Your task to perform on an android device: make emails show in primary in the gmail app Image 0: 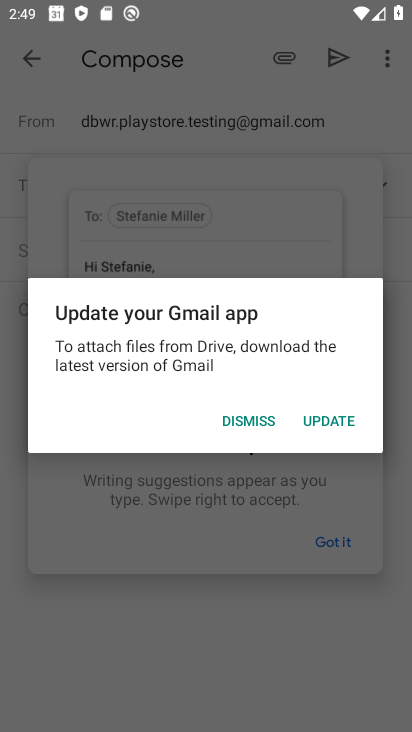
Step 0: press home button
Your task to perform on an android device: make emails show in primary in the gmail app Image 1: 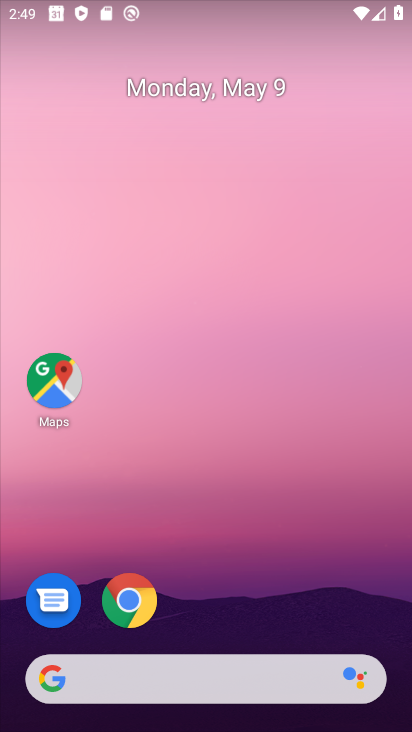
Step 1: drag from (212, 721) to (216, 53)
Your task to perform on an android device: make emails show in primary in the gmail app Image 2: 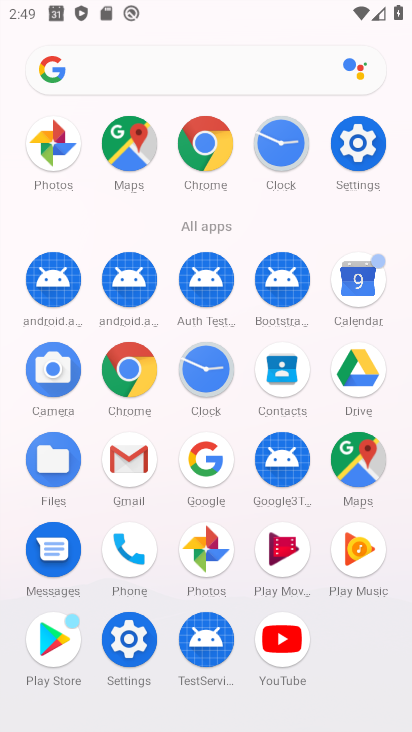
Step 2: click (128, 460)
Your task to perform on an android device: make emails show in primary in the gmail app Image 3: 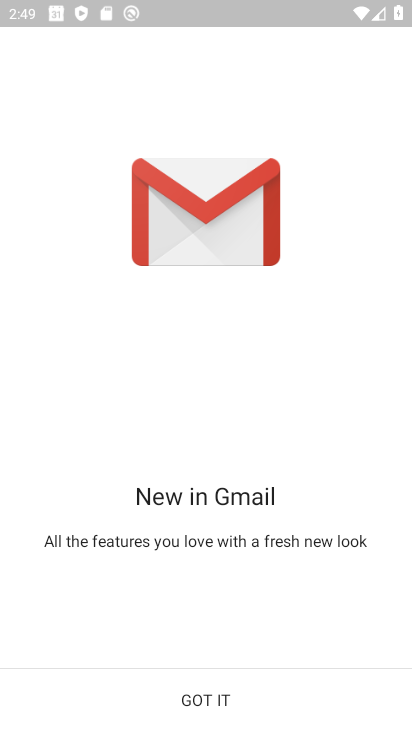
Step 3: click (211, 693)
Your task to perform on an android device: make emails show in primary in the gmail app Image 4: 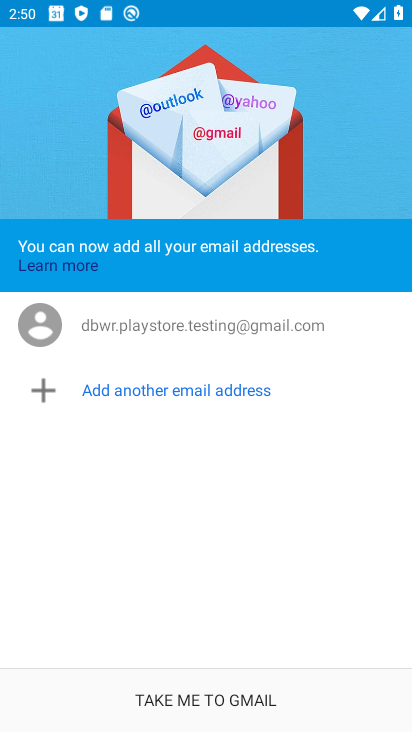
Step 4: click (249, 695)
Your task to perform on an android device: make emails show in primary in the gmail app Image 5: 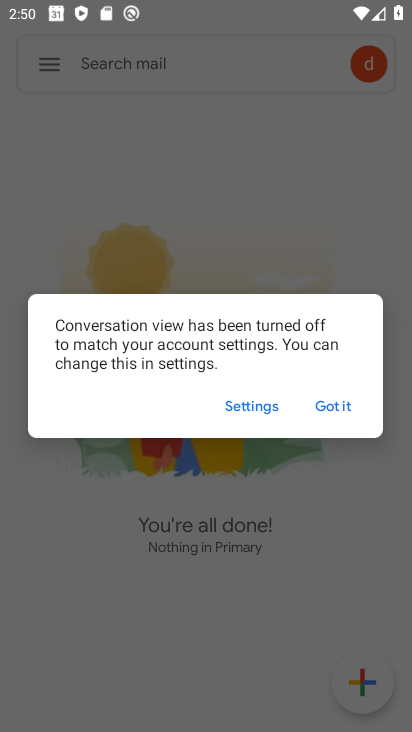
Step 5: click (325, 405)
Your task to perform on an android device: make emails show in primary in the gmail app Image 6: 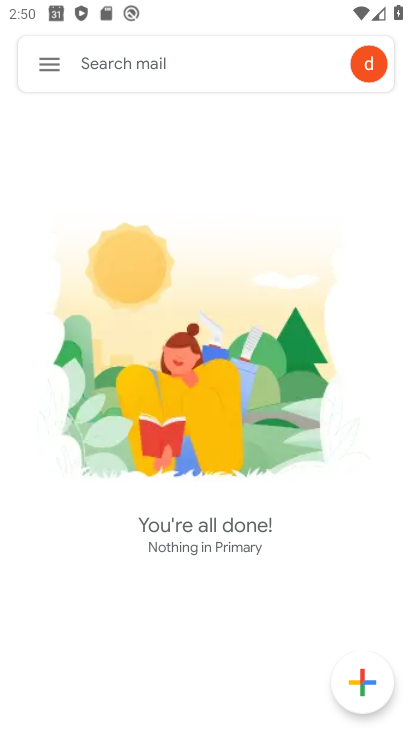
Step 6: click (45, 60)
Your task to perform on an android device: make emails show in primary in the gmail app Image 7: 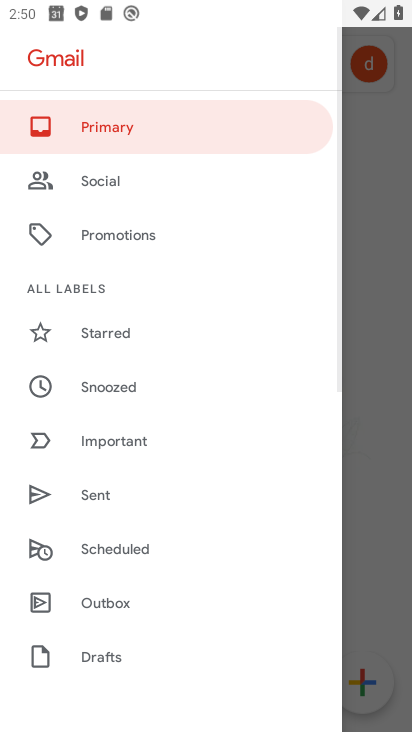
Step 7: drag from (123, 632) to (149, 312)
Your task to perform on an android device: make emails show in primary in the gmail app Image 8: 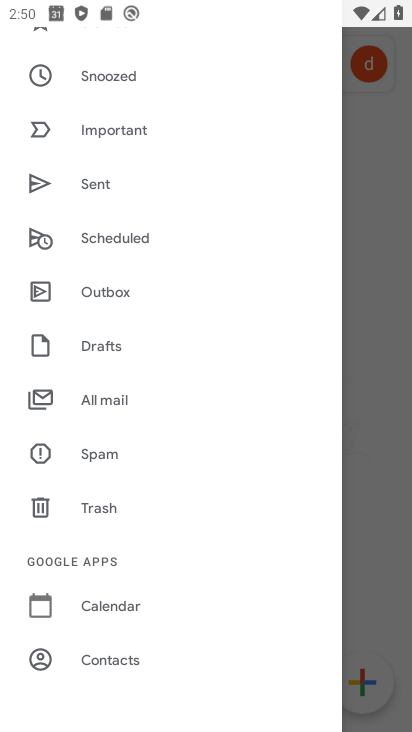
Step 8: drag from (140, 632) to (153, 382)
Your task to perform on an android device: make emails show in primary in the gmail app Image 9: 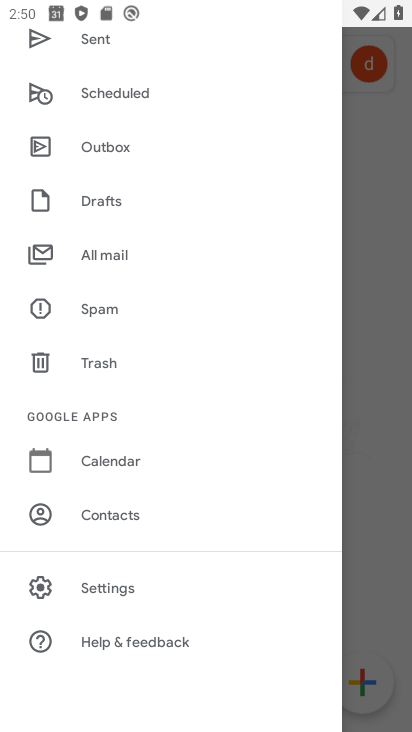
Step 9: click (111, 586)
Your task to perform on an android device: make emails show in primary in the gmail app Image 10: 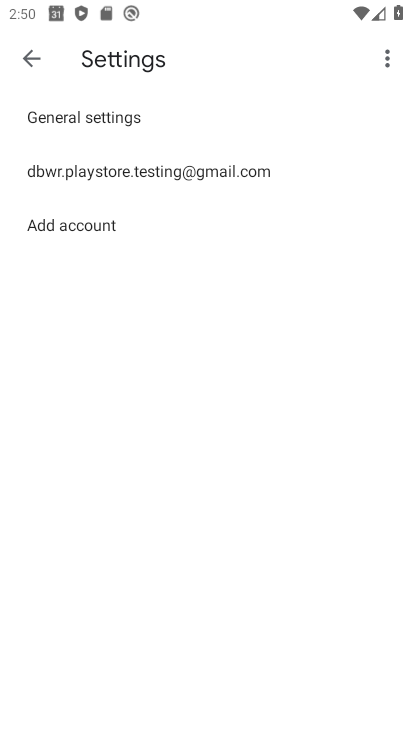
Step 10: click (167, 168)
Your task to perform on an android device: make emails show in primary in the gmail app Image 11: 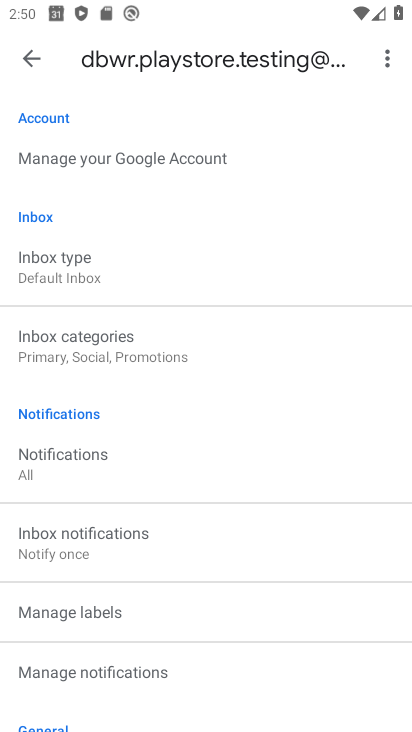
Step 11: click (70, 269)
Your task to perform on an android device: make emails show in primary in the gmail app Image 12: 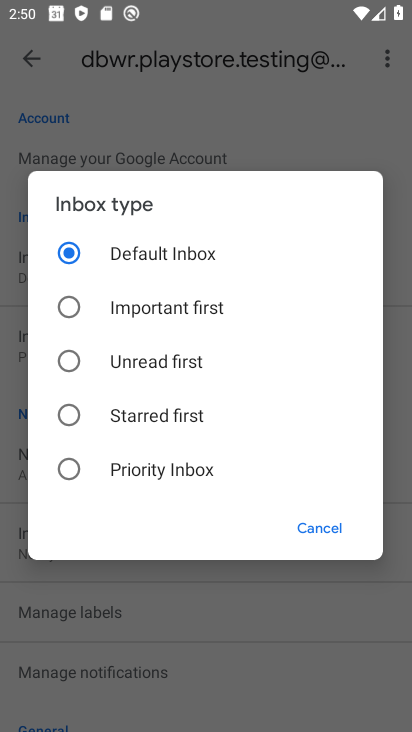
Step 12: click (313, 128)
Your task to perform on an android device: make emails show in primary in the gmail app Image 13: 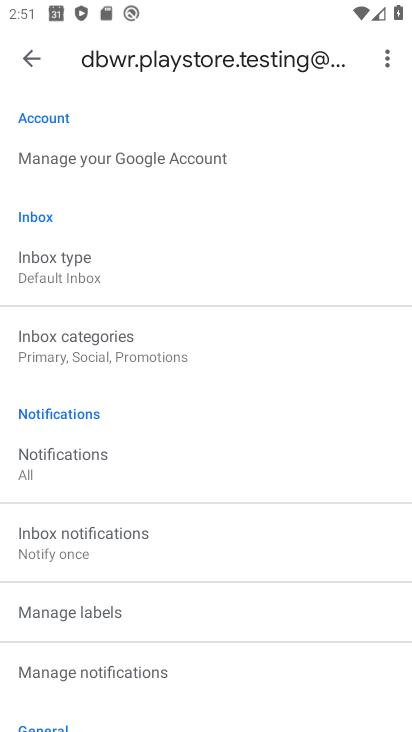
Step 13: click (116, 346)
Your task to perform on an android device: make emails show in primary in the gmail app Image 14: 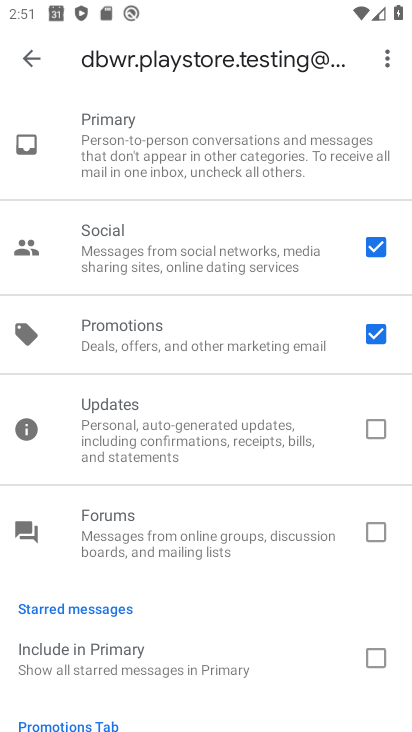
Step 14: click (375, 338)
Your task to perform on an android device: make emails show in primary in the gmail app Image 15: 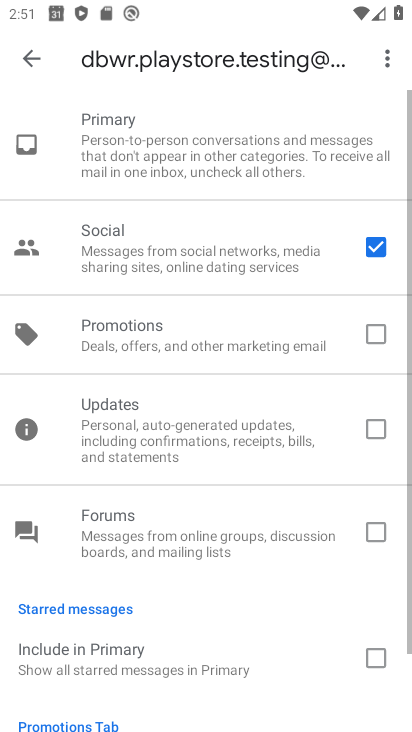
Step 15: click (374, 248)
Your task to perform on an android device: make emails show in primary in the gmail app Image 16: 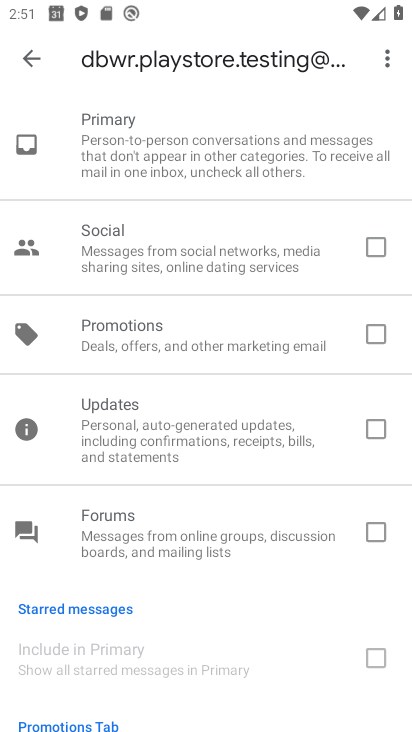
Step 16: click (29, 62)
Your task to perform on an android device: make emails show in primary in the gmail app Image 17: 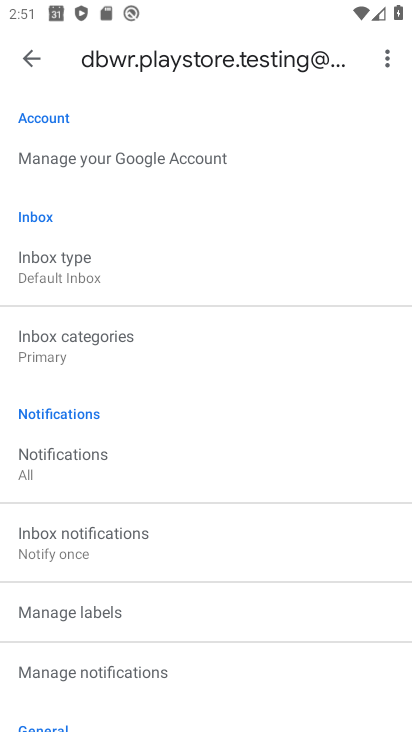
Step 17: task complete